Your task to perform on an android device: What's the latest video from GameSpot Trailers? Image 0: 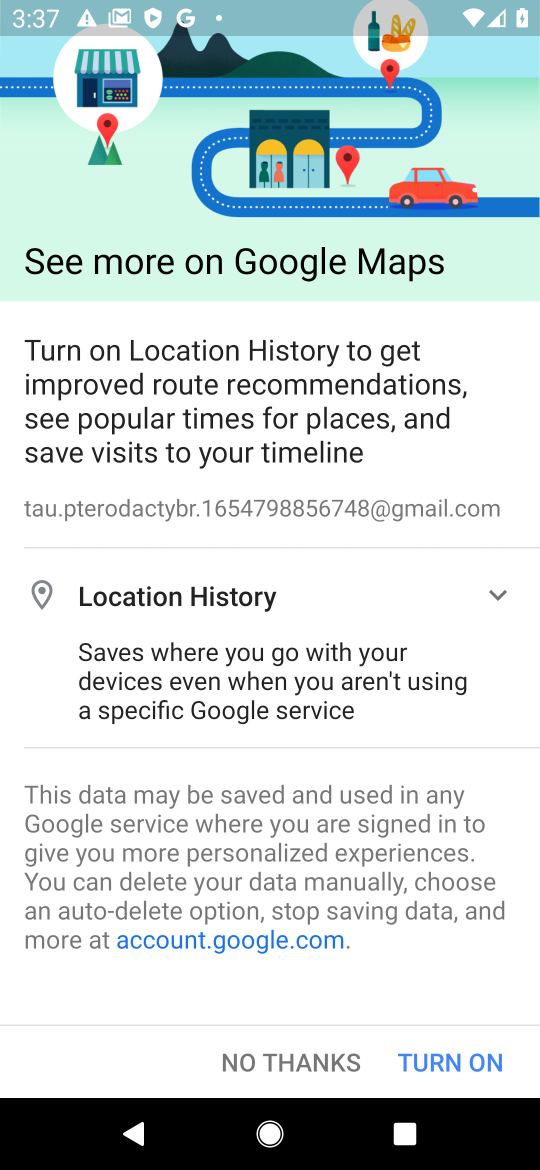
Step 0: press home button
Your task to perform on an android device: What's the latest video from GameSpot Trailers? Image 1: 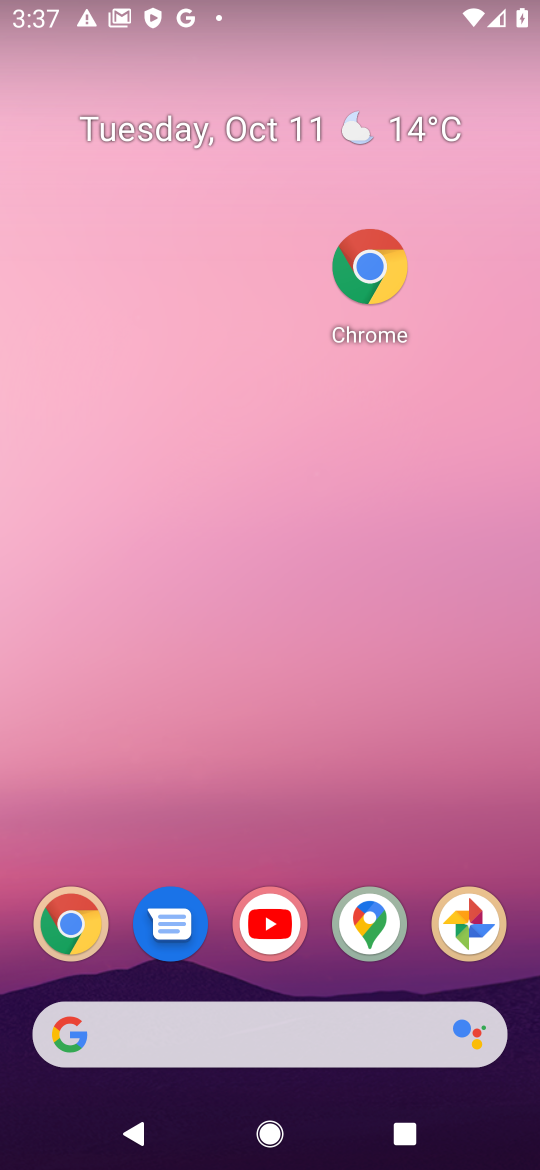
Step 1: click (279, 919)
Your task to perform on an android device: What's the latest video from GameSpot Trailers? Image 2: 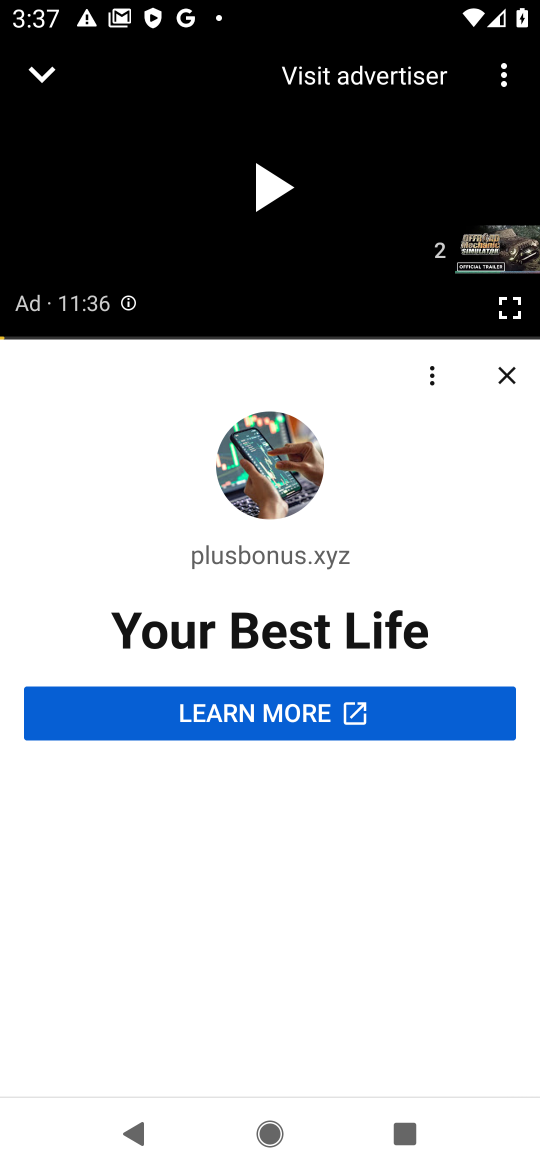
Step 2: drag from (343, 310) to (512, 1039)
Your task to perform on an android device: What's the latest video from GameSpot Trailers? Image 3: 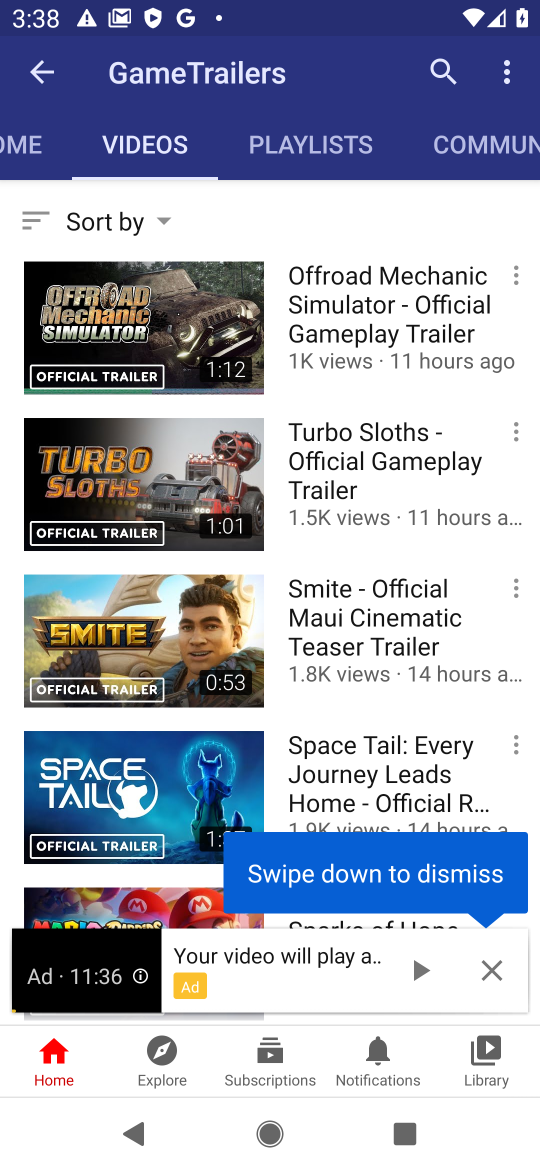
Step 3: click (451, 64)
Your task to perform on an android device: What's the latest video from GameSpot Trailers? Image 4: 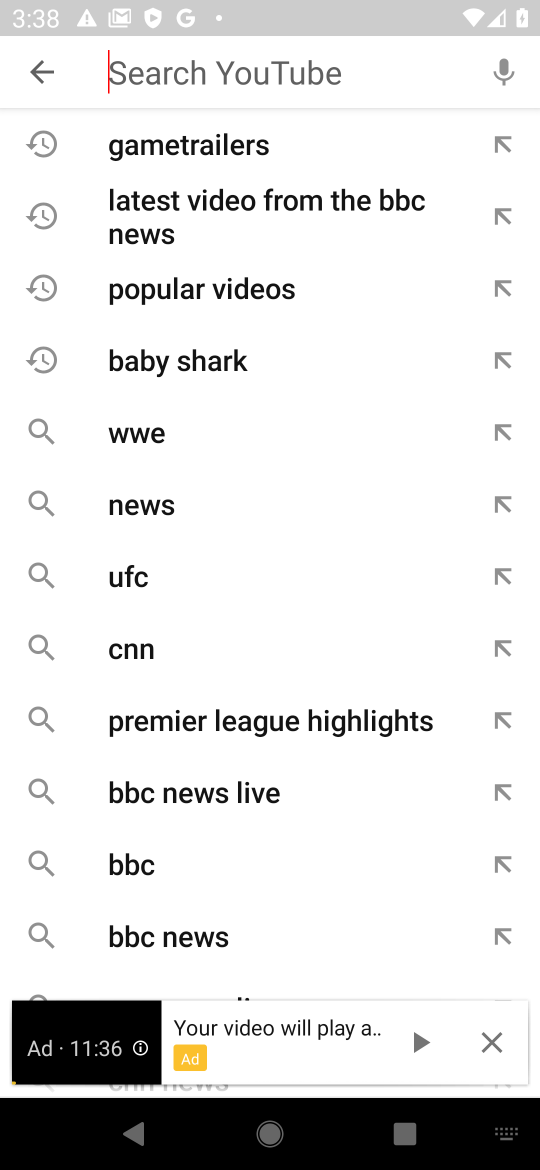
Step 4: type "gamespot trailers"
Your task to perform on an android device: What's the latest video from GameSpot Trailers? Image 5: 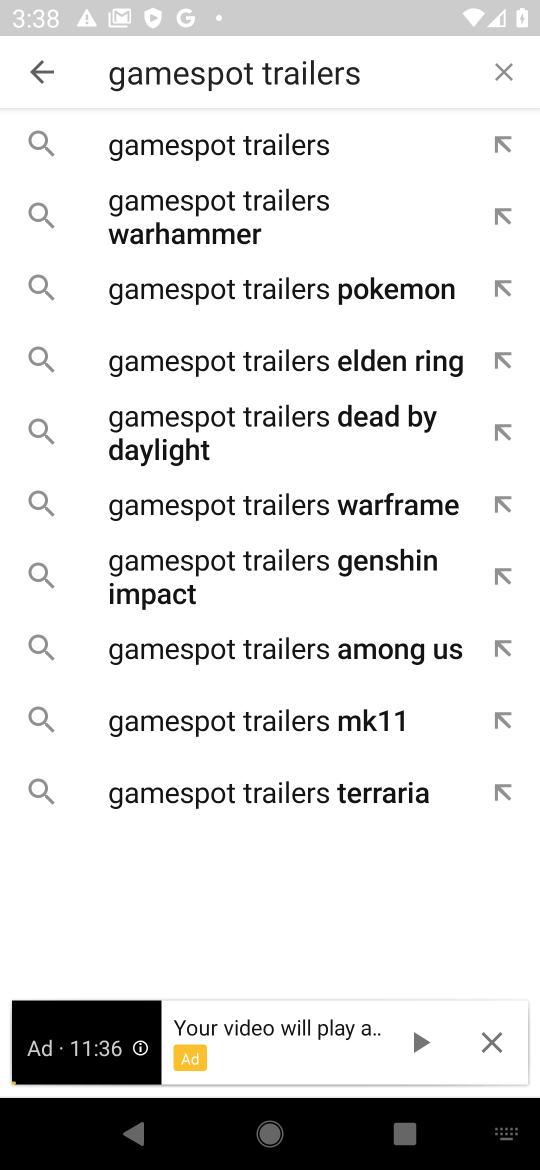
Step 5: click (314, 139)
Your task to perform on an android device: What's the latest video from GameSpot Trailers? Image 6: 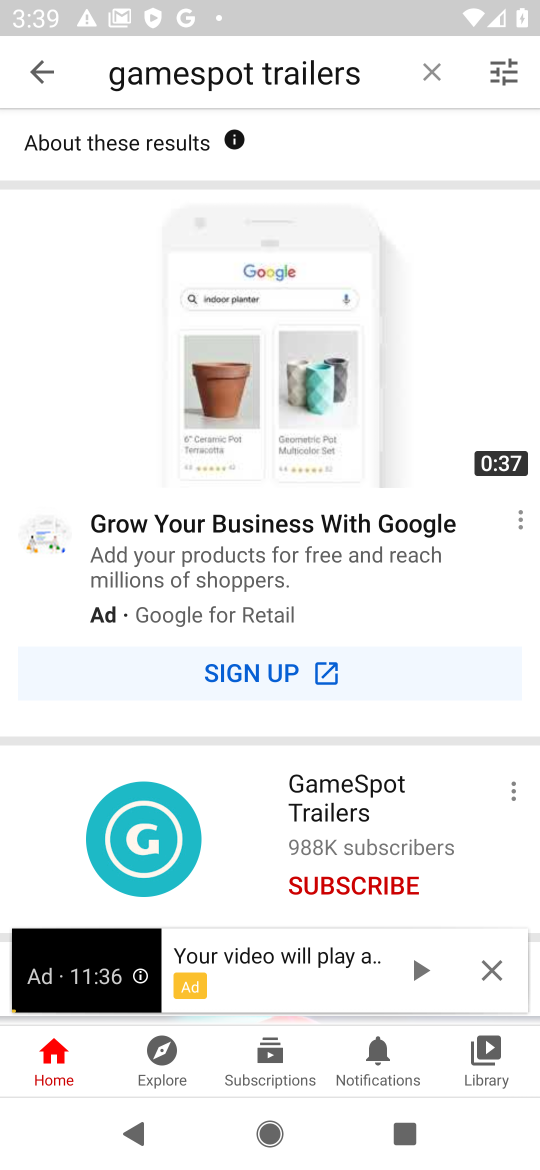
Step 6: click (302, 832)
Your task to perform on an android device: What's the latest video from GameSpot Trailers? Image 7: 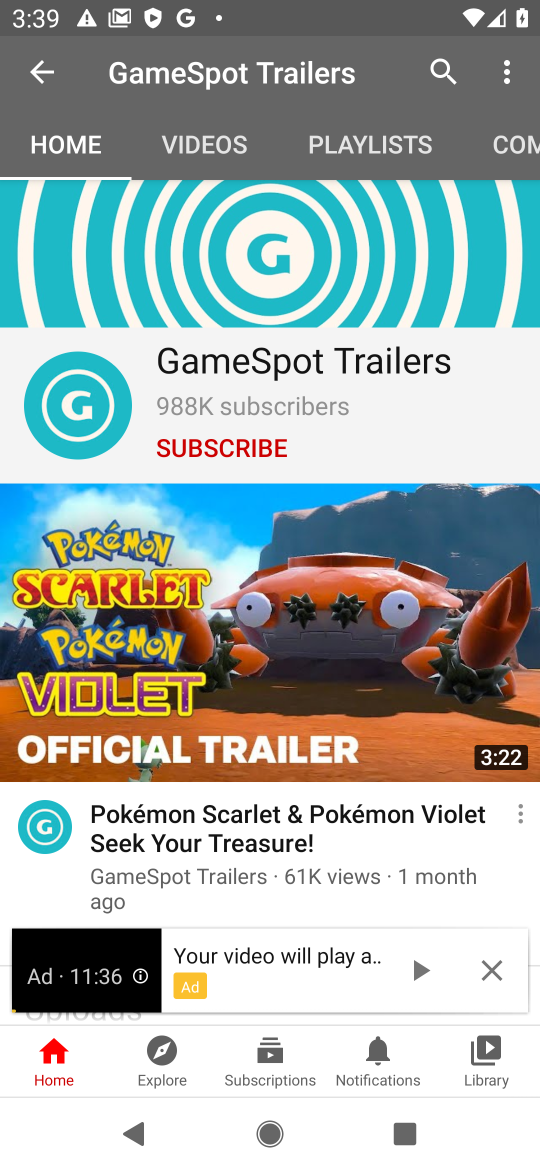
Step 7: click (498, 968)
Your task to perform on an android device: What's the latest video from GameSpot Trailers? Image 8: 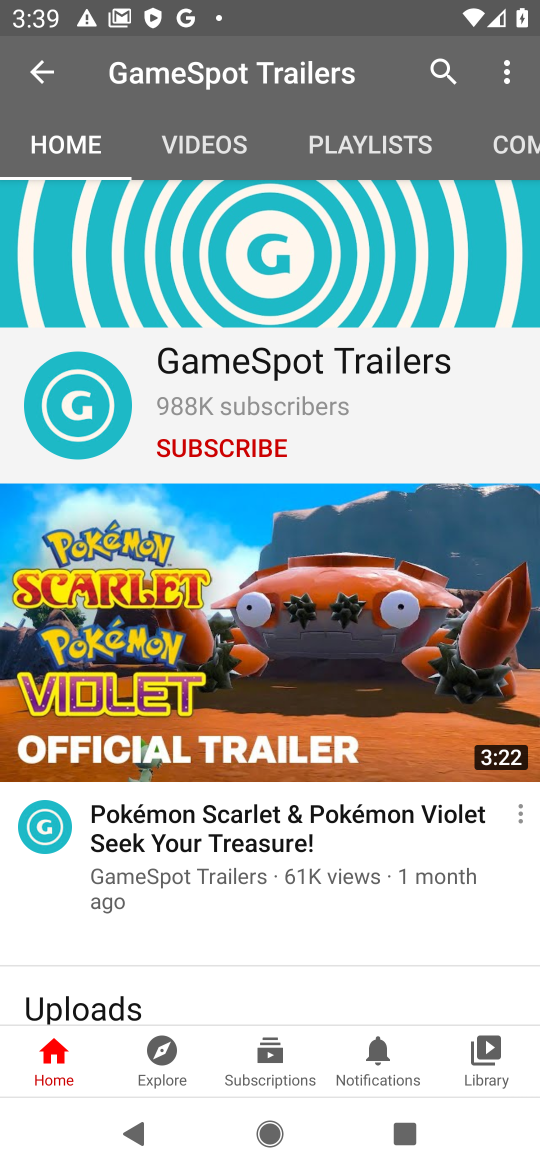
Step 8: click (186, 145)
Your task to perform on an android device: What's the latest video from GameSpot Trailers? Image 9: 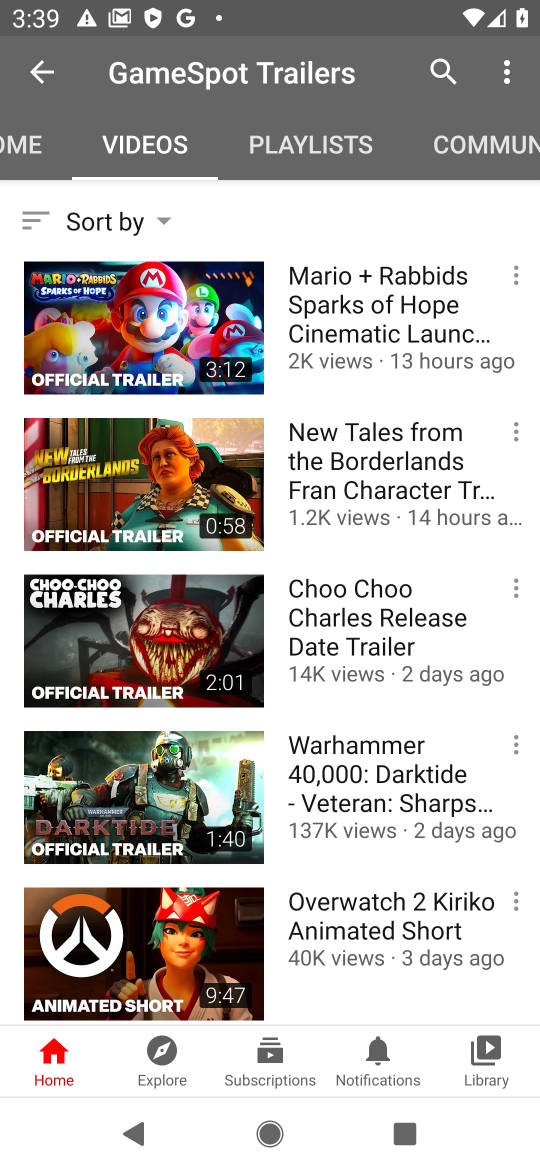
Step 9: task complete